Your task to perform on an android device: Go to Yahoo.com Image 0: 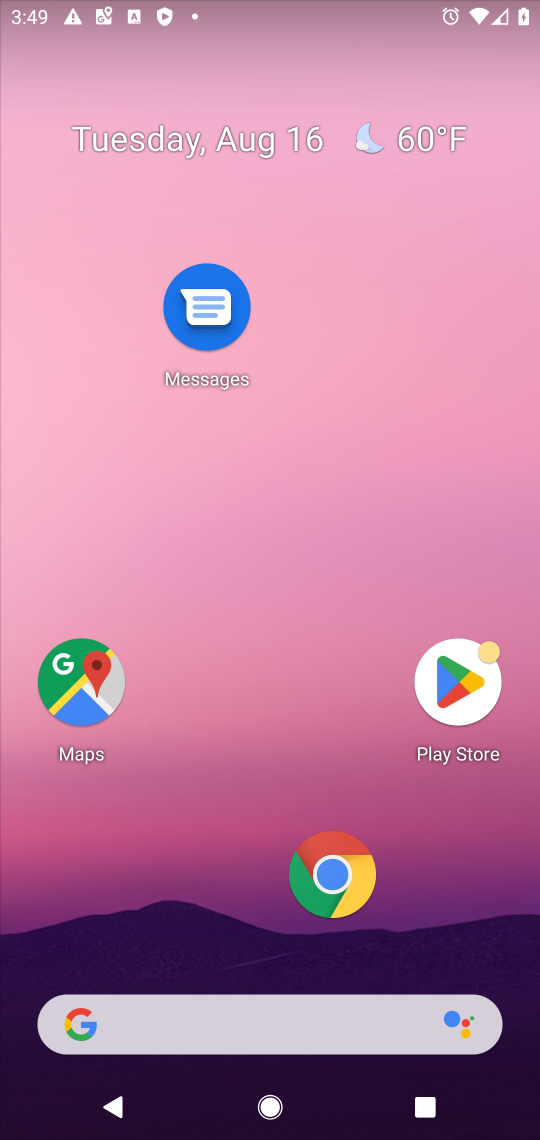
Step 0: click (341, 855)
Your task to perform on an android device: Go to Yahoo.com Image 1: 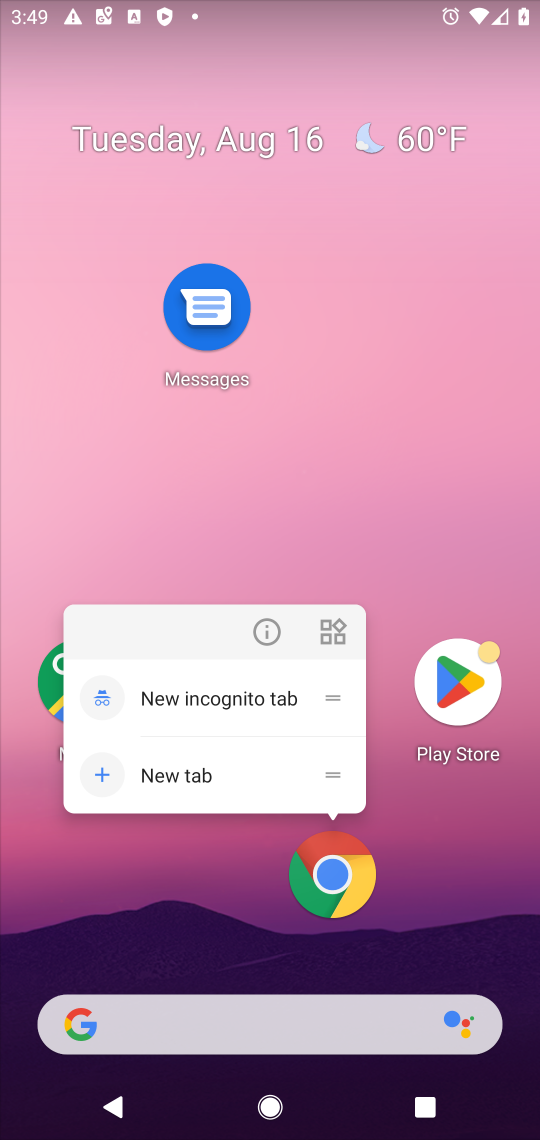
Step 1: click (333, 875)
Your task to perform on an android device: Go to Yahoo.com Image 2: 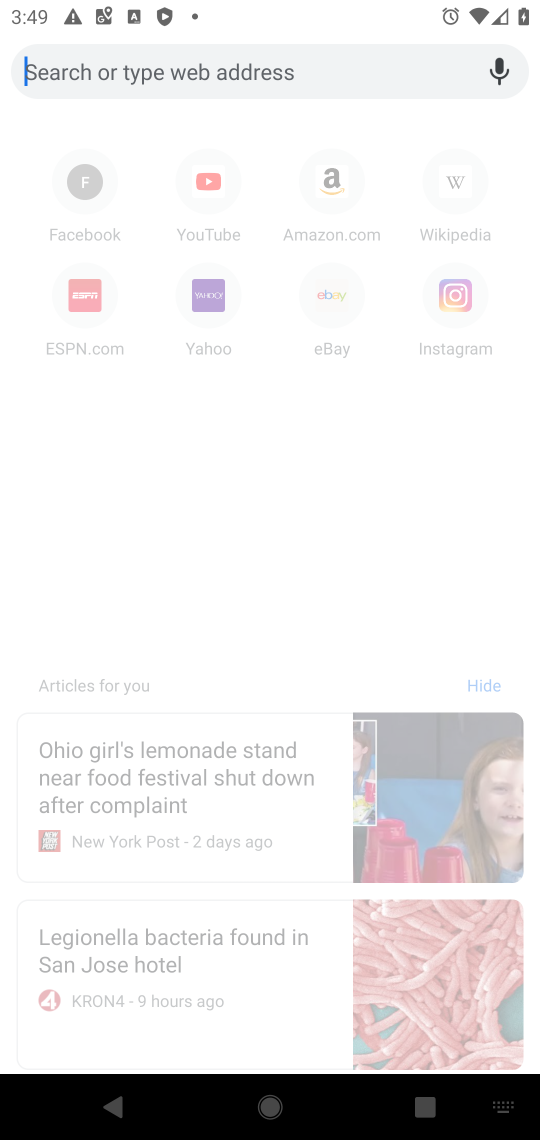
Step 2: click (207, 320)
Your task to perform on an android device: Go to Yahoo.com Image 3: 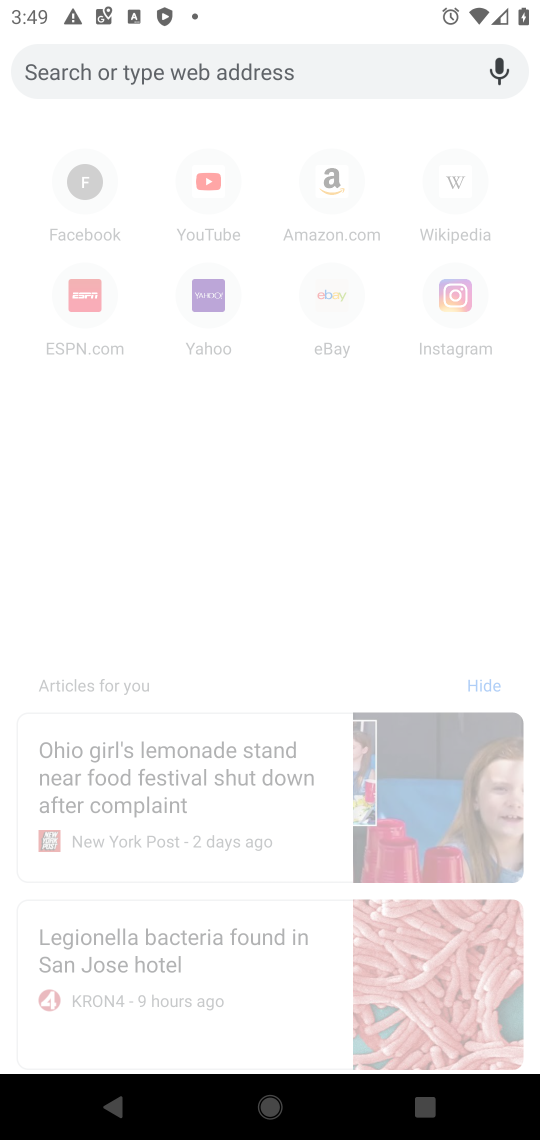
Step 3: click (204, 297)
Your task to perform on an android device: Go to Yahoo.com Image 4: 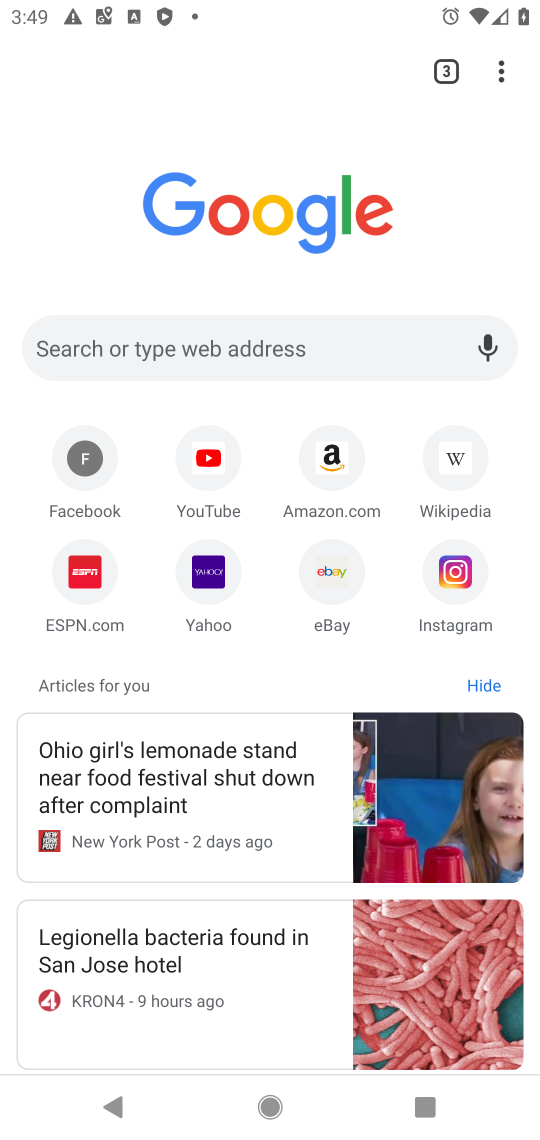
Step 4: click (204, 580)
Your task to perform on an android device: Go to Yahoo.com Image 5: 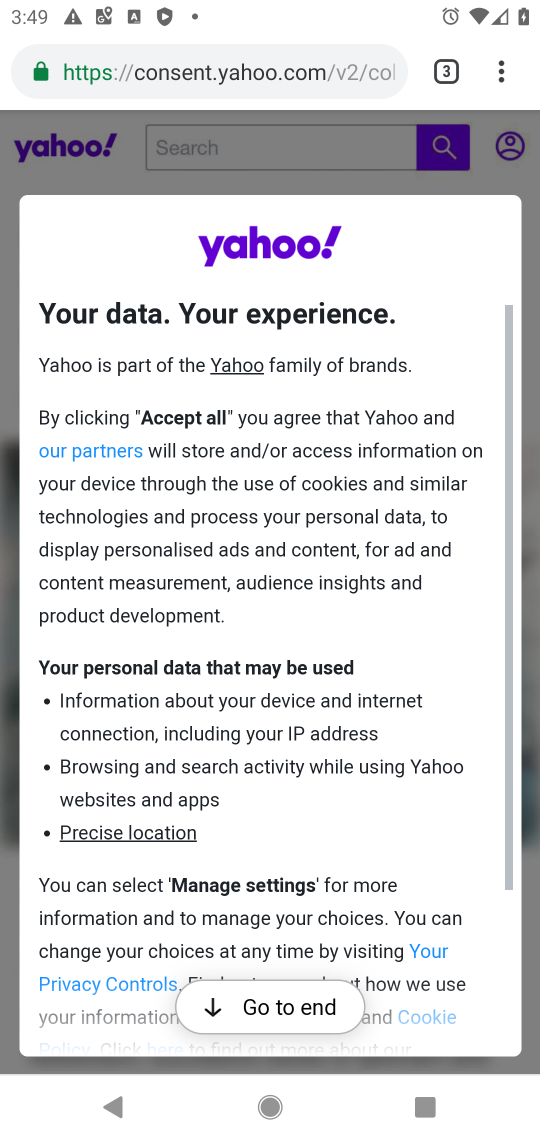
Step 5: task complete